Your task to perform on an android device: find snoozed emails in the gmail app Image 0: 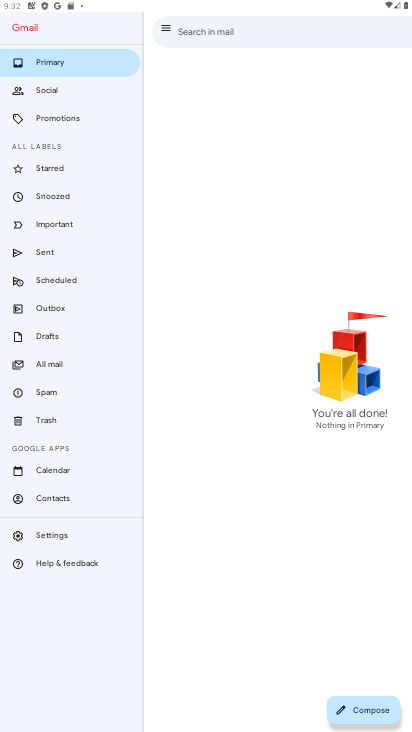
Step 0: click (80, 191)
Your task to perform on an android device: find snoozed emails in the gmail app Image 1: 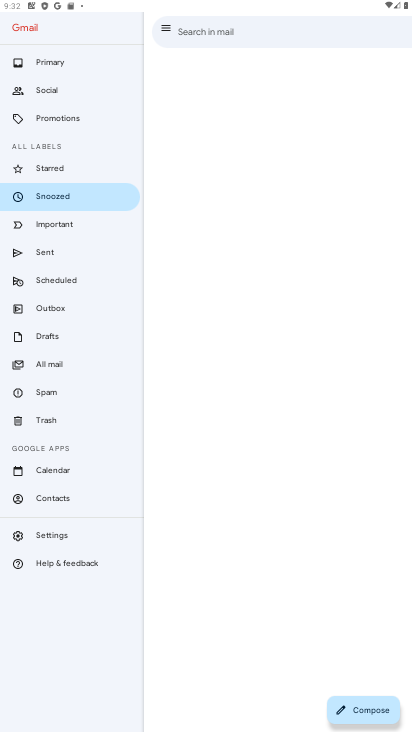
Step 1: task complete